Your task to perform on an android device: Open privacy settings Image 0: 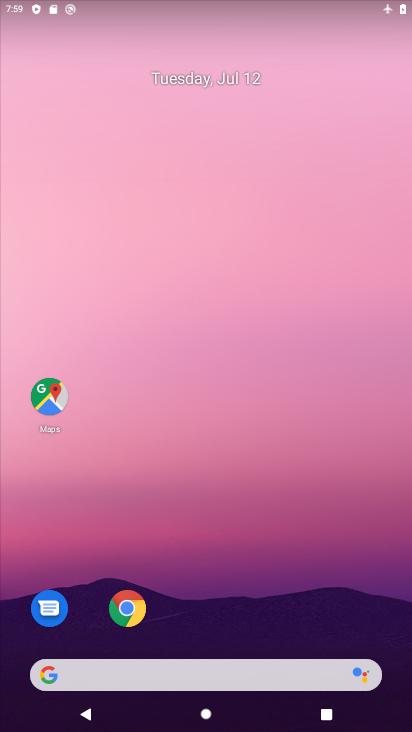
Step 0: drag from (221, 629) to (193, 102)
Your task to perform on an android device: Open privacy settings Image 1: 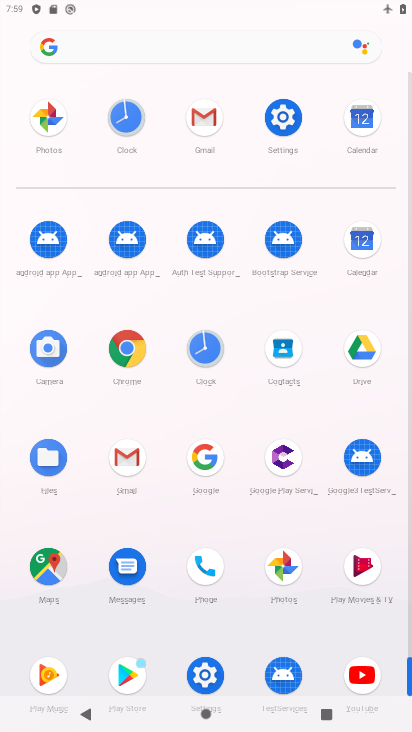
Step 1: click (209, 675)
Your task to perform on an android device: Open privacy settings Image 2: 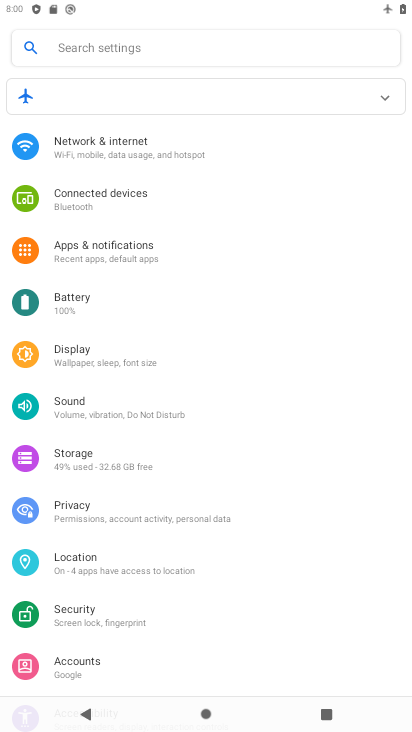
Step 2: click (76, 498)
Your task to perform on an android device: Open privacy settings Image 3: 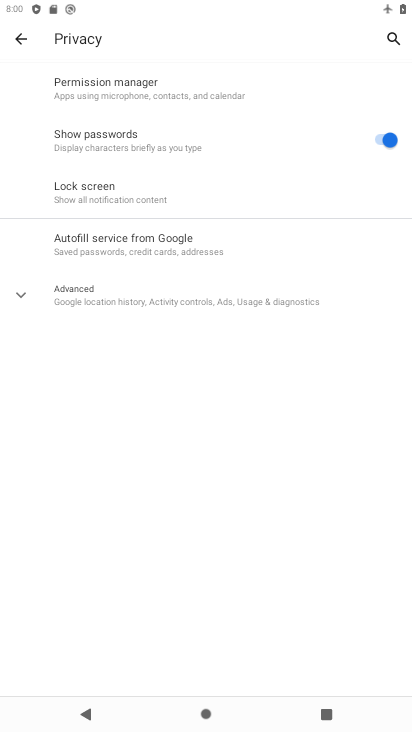
Step 3: task complete